Your task to perform on an android device: Search for "macbook" on costco.com, select the first entry, add it to the cart, then select checkout. Image 0: 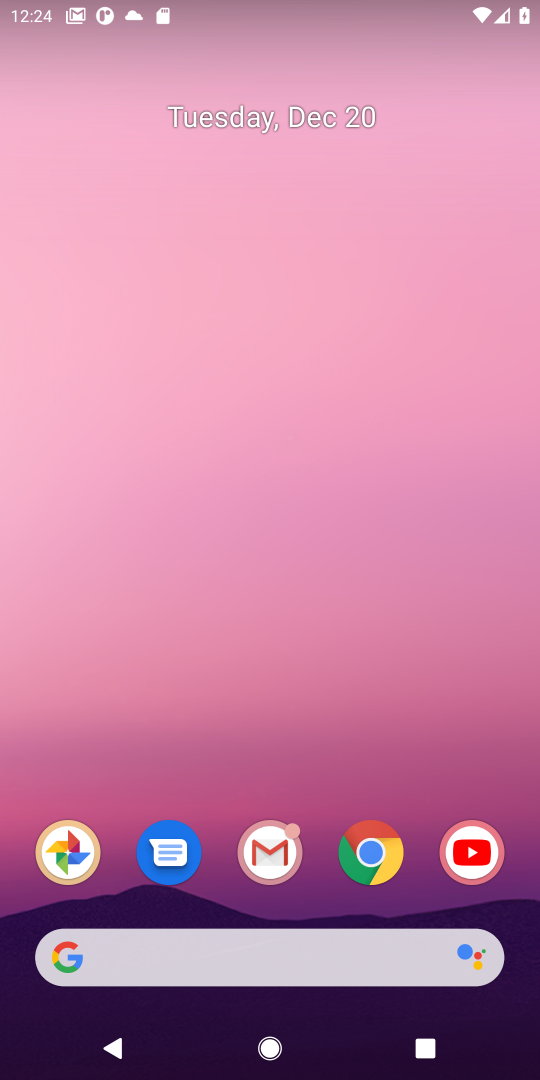
Step 0: click (379, 853)
Your task to perform on an android device: Search for "macbook" on costco.com, select the first entry, add it to the cart, then select checkout. Image 1: 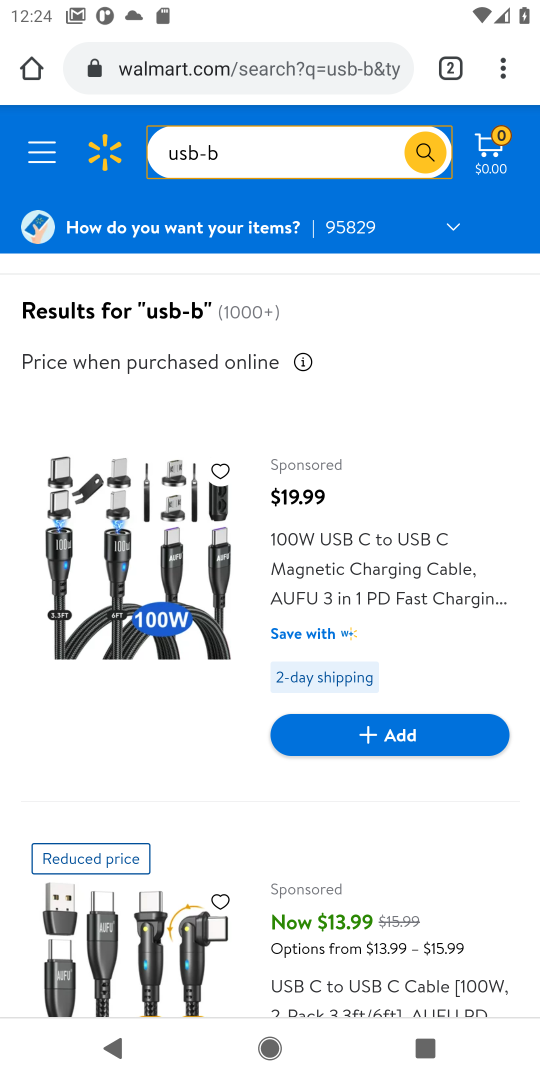
Step 1: click (182, 69)
Your task to perform on an android device: Search for "macbook" on costco.com, select the first entry, add it to the cart, then select checkout. Image 2: 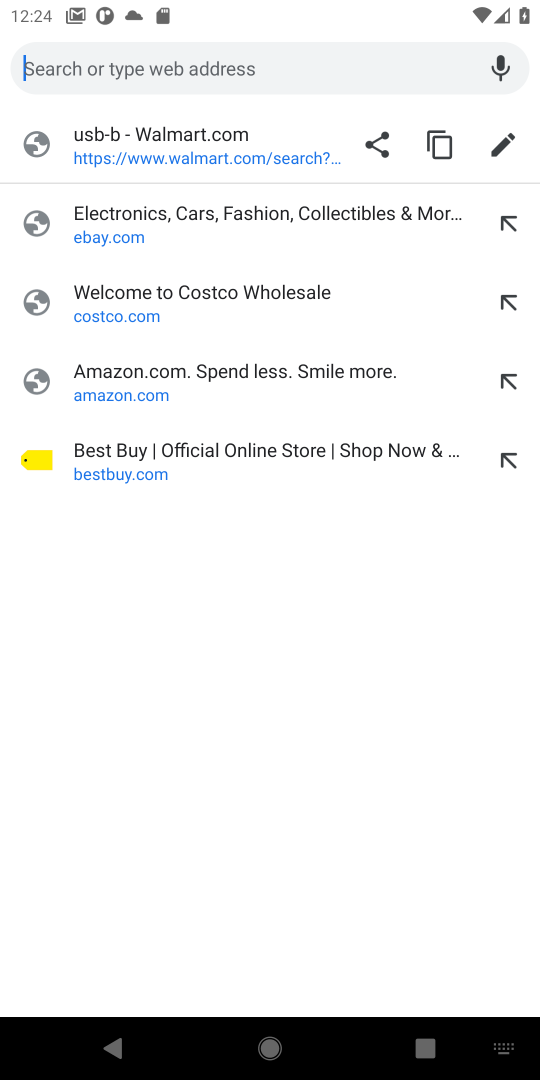
Step 2: click (114, 301)
Your task to perform on an android device: Search for "macbook" on costco.com, select the first entry, add it to the cart, then select checkout. Image 3: 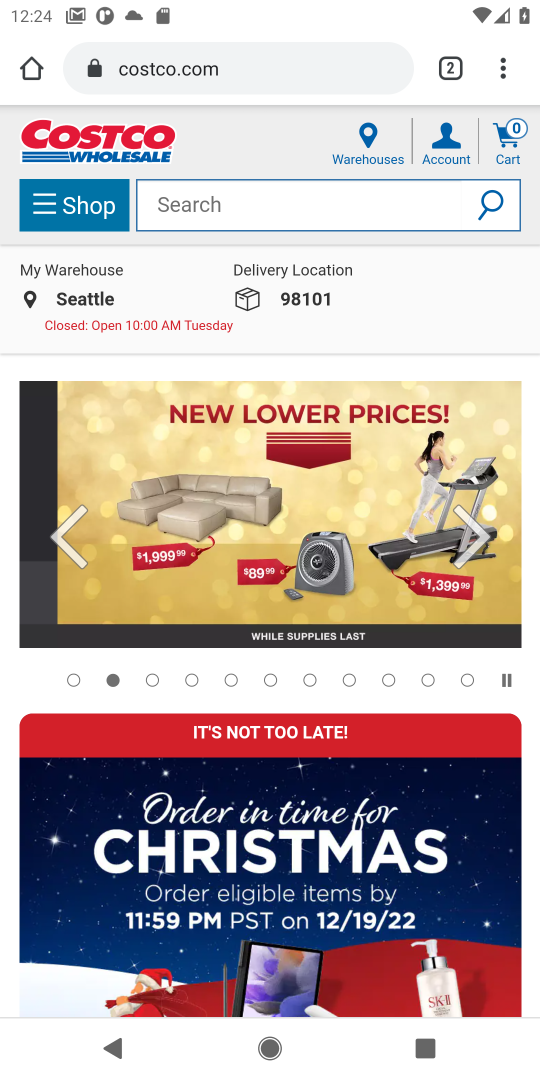
Step 3: click (175, 202)
Your task to perform on an android device: Search for "macbook" on costco.com, select the first entry, add it to the cart, then select checkout. Image 4: 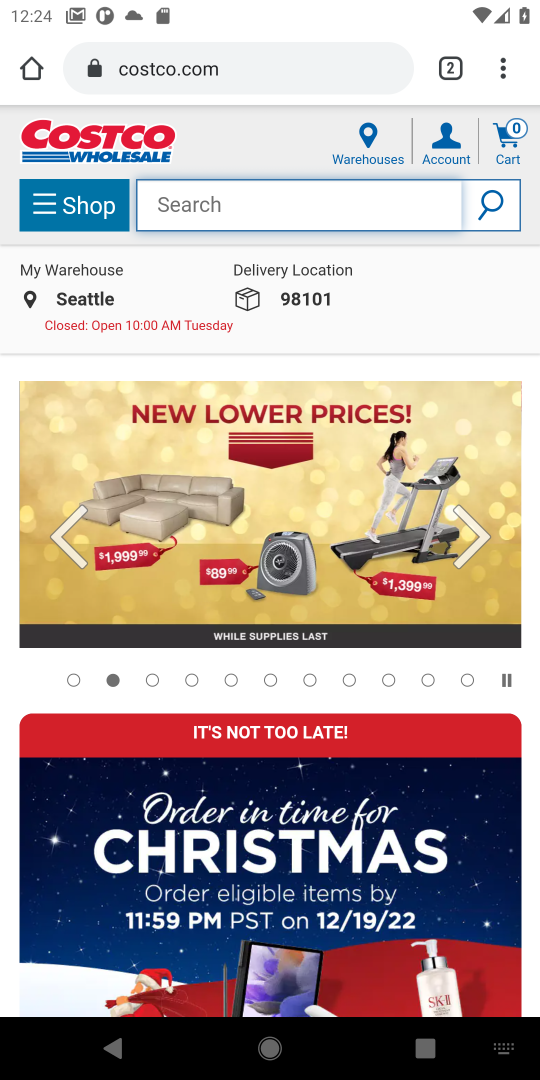
Step 4: type "macbook"
Your task to perform on an android device: Search for "macbook" on costco.com, select the first entry, add it to the cart, then select checkout. Image 5: 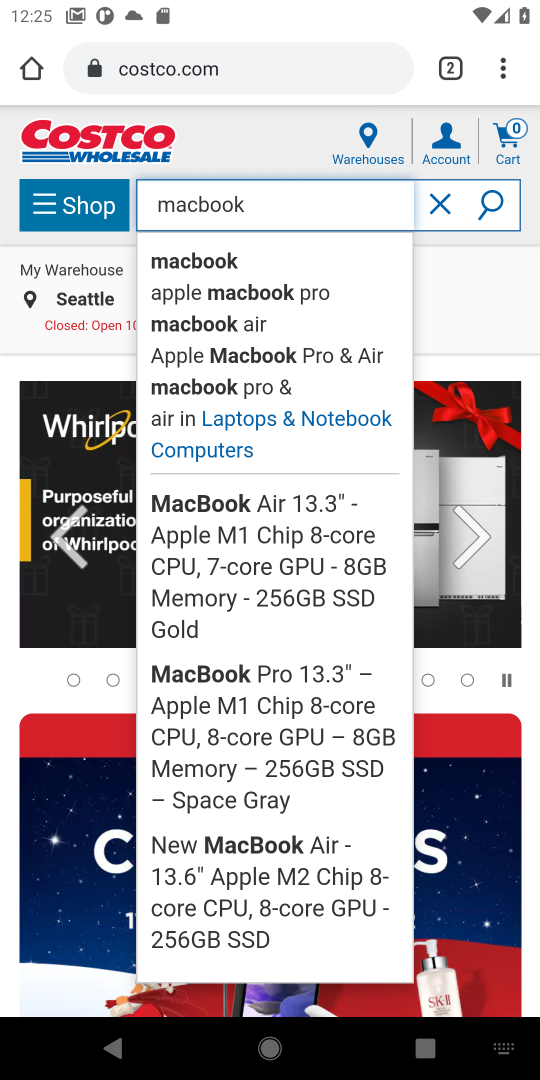
Step 5: click (198, 265)
Your task to perform on an android device: Search for "macbook" on costco.com, select the first entry, add it to the cart, then select checkout. Image 6: 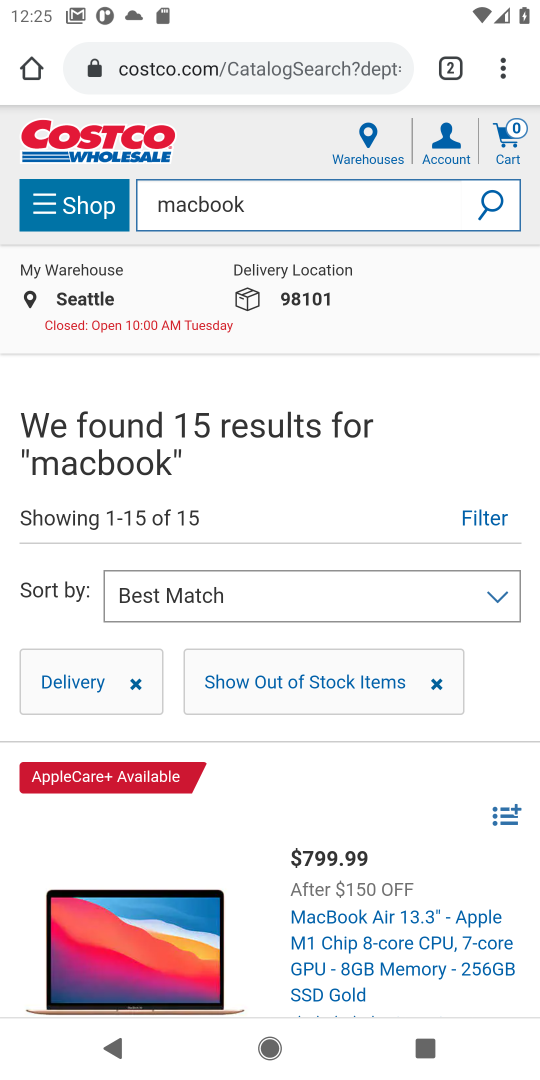
Step 6: drag from (220, 820) to (242, 564)
Your task to perform on an android device: Search for "macbook" on costco.com, select the first entry, add it to the cart, then select checkout. Image 7: 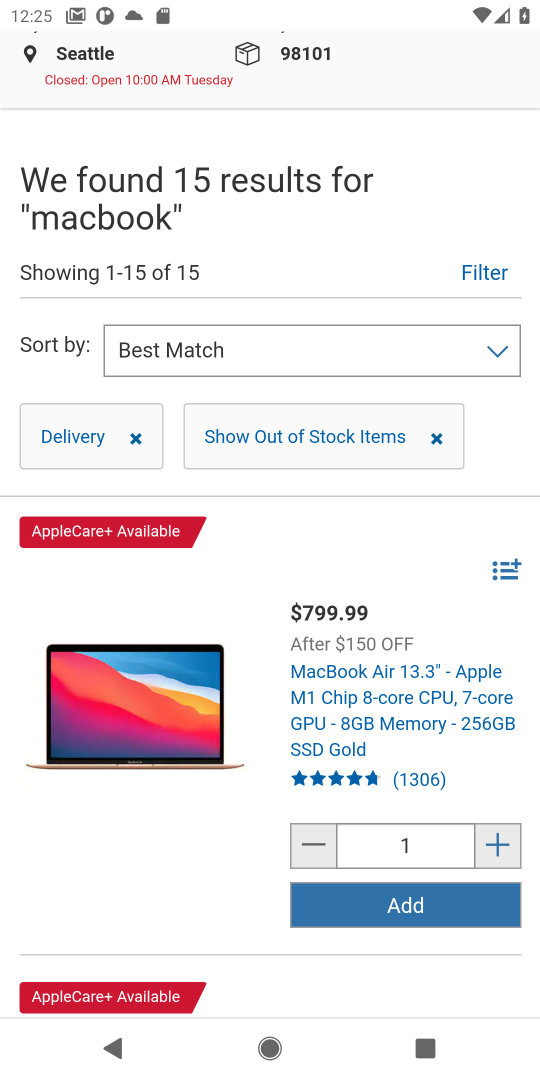
Step 7: click (413, 911)
Your task to perform on an android device: Search for "macbook" on costco.com, select the first entry, add it to the cart, then select checkout. Image 8: 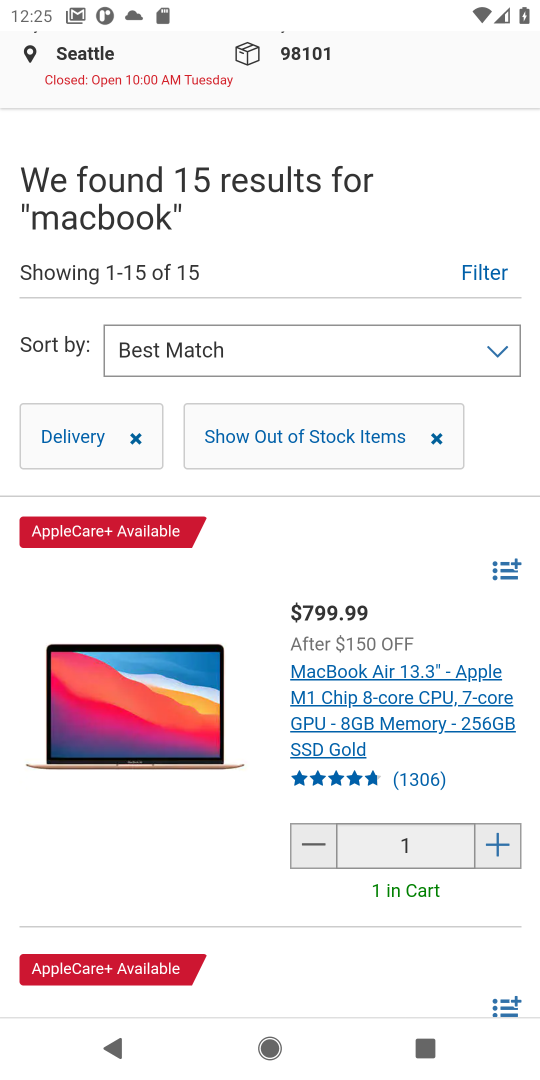
Step 8: drag from (341, 217) to (331, 580)
Your task to perform on an android device: Search for "macbook" on costco.com, select the first entry, add it to the cart, then select checkout. Image 9: 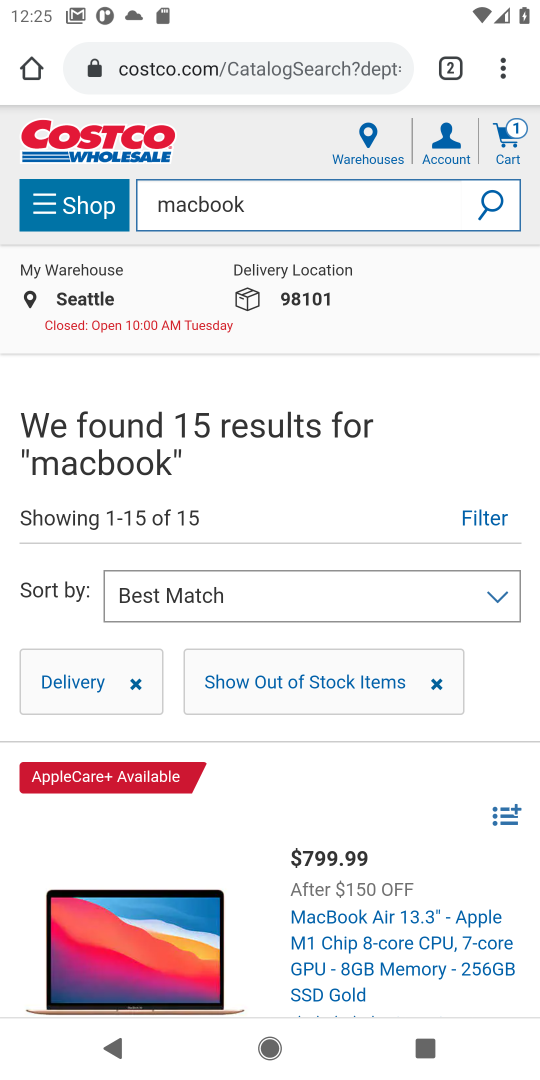
Step 9: click (506, 148)
Your task to perform on an android device: Search for "macbook" on costco.com, select the first entry, add it to the cart, then select checkout. Image 10: 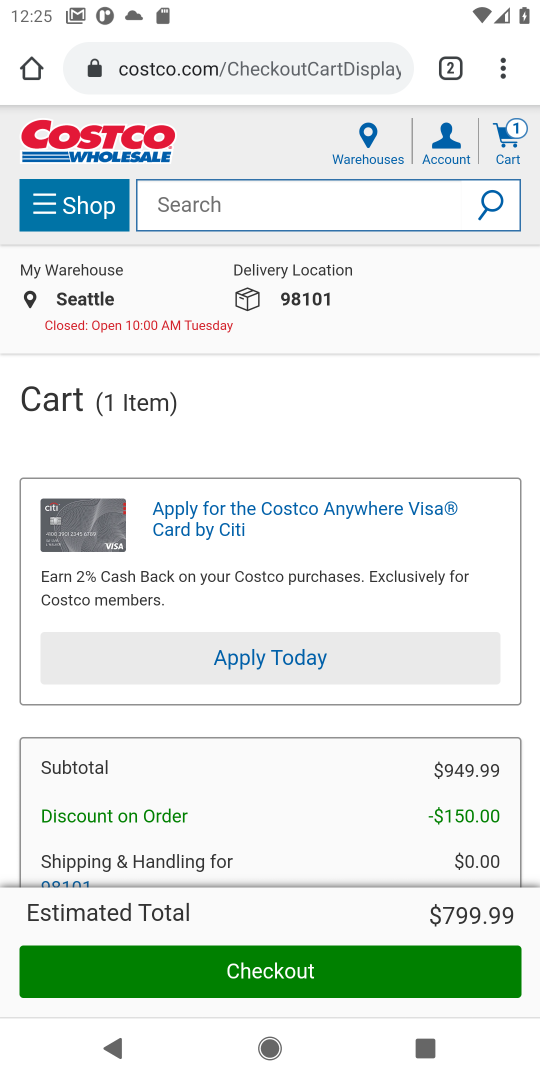
Step 10: click (235, 974)
Your task to perform on an android device: Search for "macbook" on costco.com, select the first entry, add it to the cart, then select checkout. Image 11: 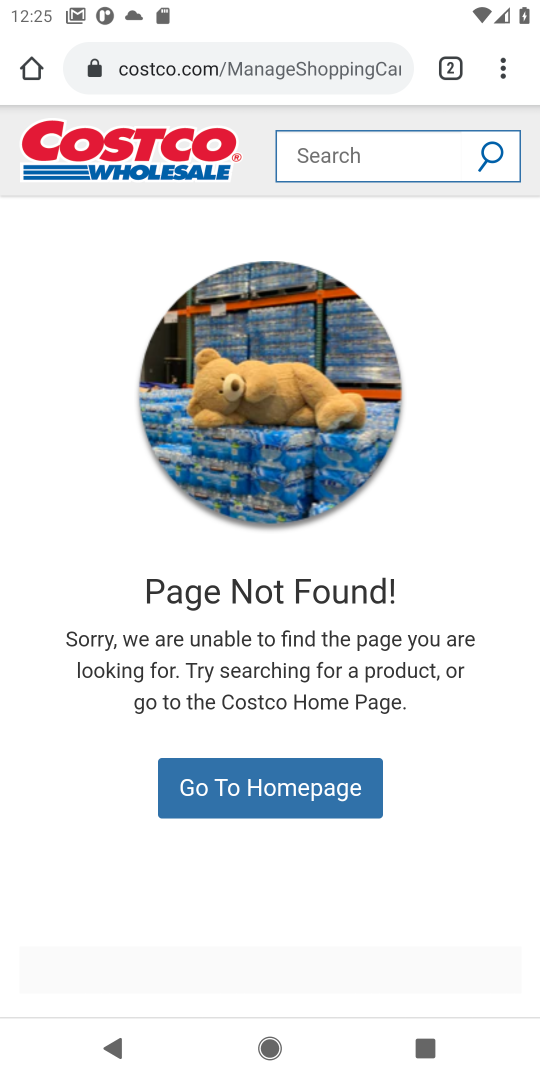
Step 11: press back button
Your task to perform on an android device: Search for "macbook" on costco.com, select the first entry, add it to the cart, then select checkout. Image 12: 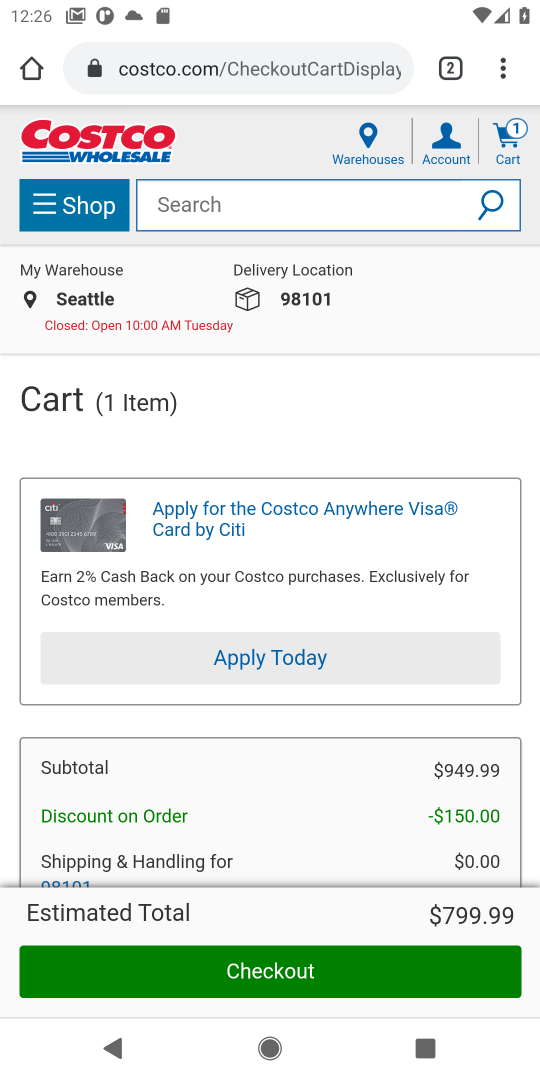
Step 12: click (255, 971)
Your task to perform on an android device: Search for "macbook" on costco.com, select the first entry, add it to the cart, then select checkout. Image 13: 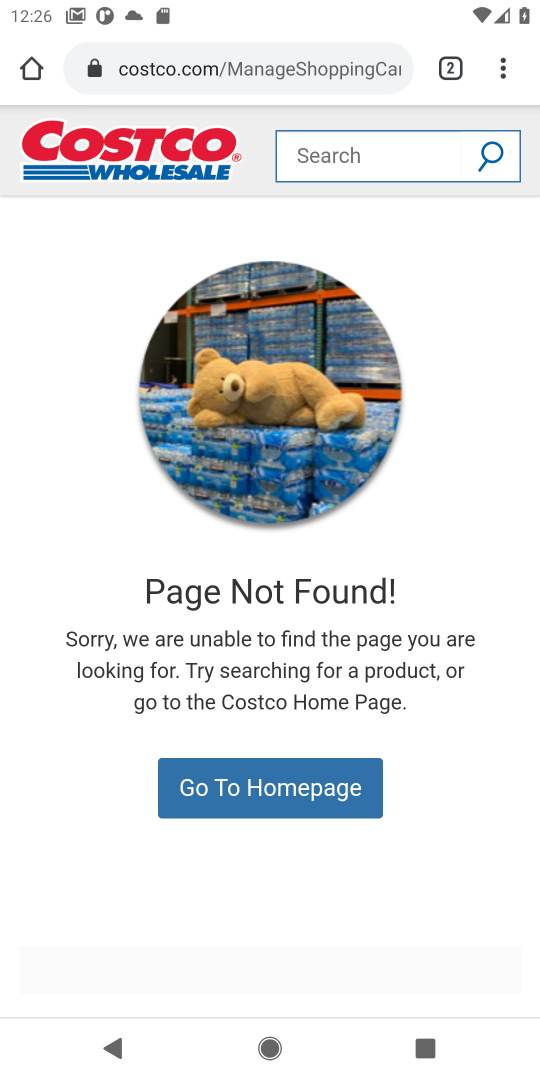
Step 13: task complete